Your task to perform on an android device: Go to eBay Image 0: 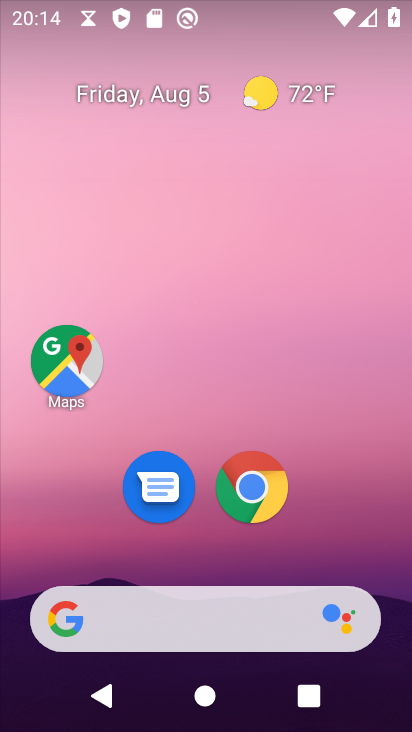
Step 0: press home button
Your task to perform on an android device: Go to eBay Image 1: 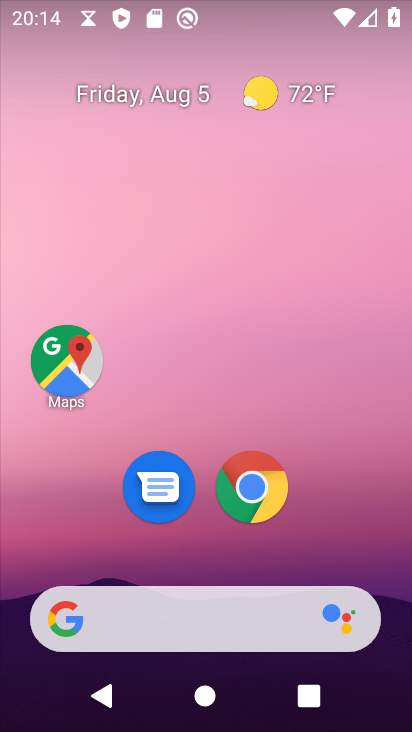
Step 1: click (260, 492)
Your task to perform on an android device: Go to eBay Image 2: 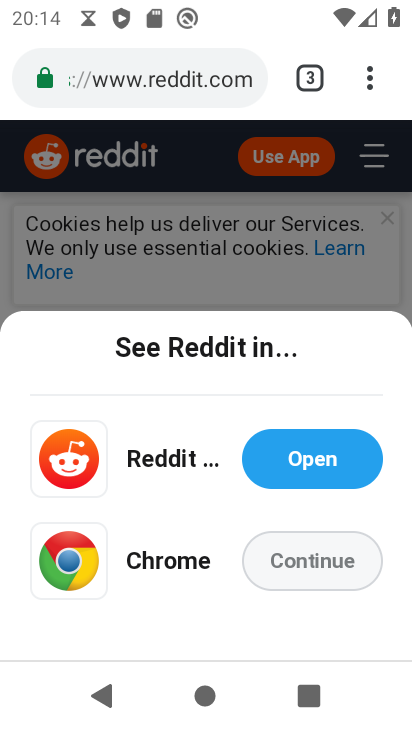
Step 2: drag from (372, 77) to (266, 157)
Your task to perform on an android device: Go to eBay Image 3: 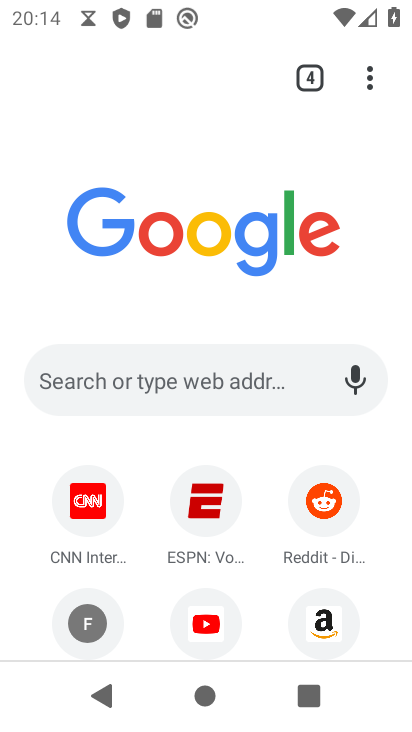
Step 3: drag from (268, 543) to (363, 134)
Your task to perform on an android device: Go to eBay Image 4: 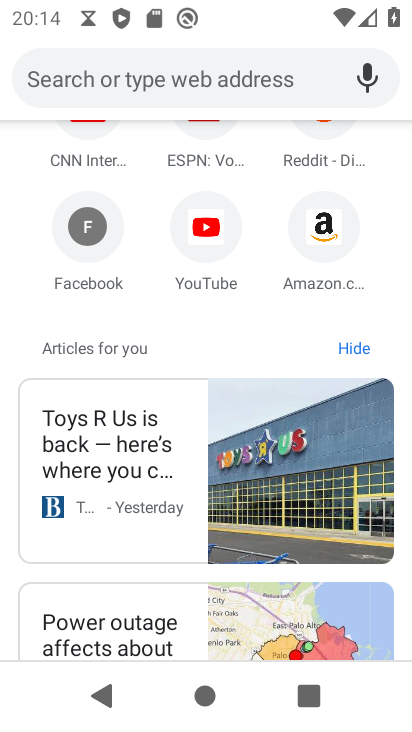
Step 4: click (150, 73)
Your task to perform on an android device: Go to eBay Image 5: 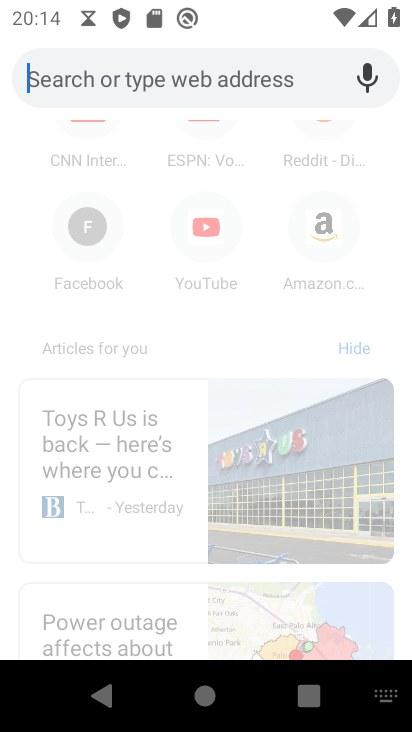
Step 5: type "ebay"
Your task to perform on an android device: Go to eBay Image 6: 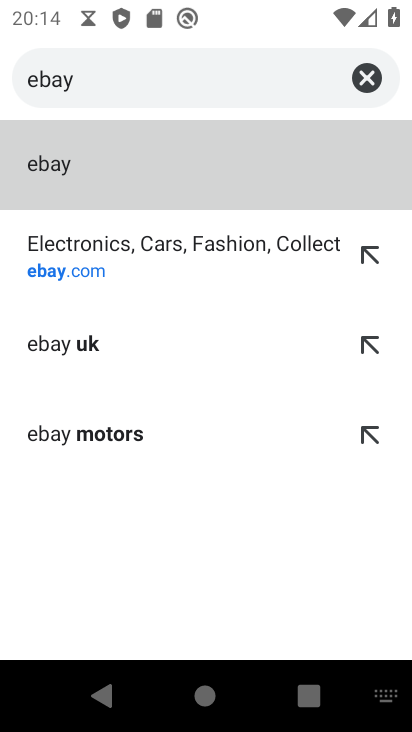
Step 6: click (101, 158)
Your task to perform on an android device: Go to eBay Image 7: 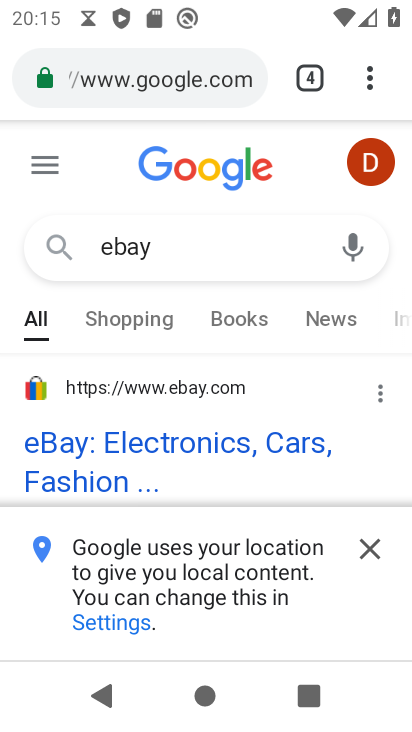
Step 7: click (154, 448)
Your task to perform on an android device: Go to eBay Image 8: 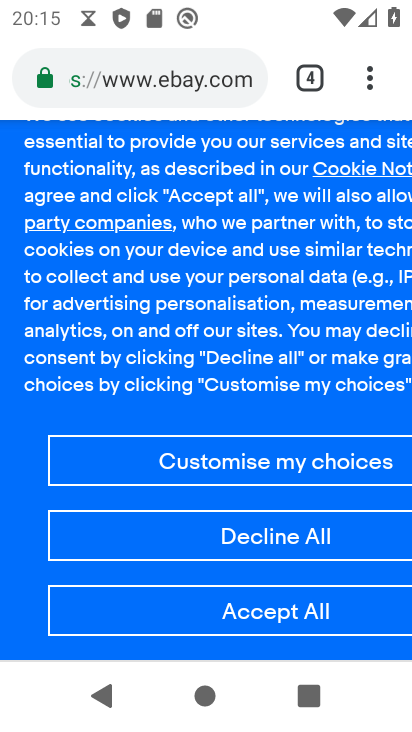
Step 8: click (300, 612)
Your task to perform on an android device: Go to eBay Image 9: 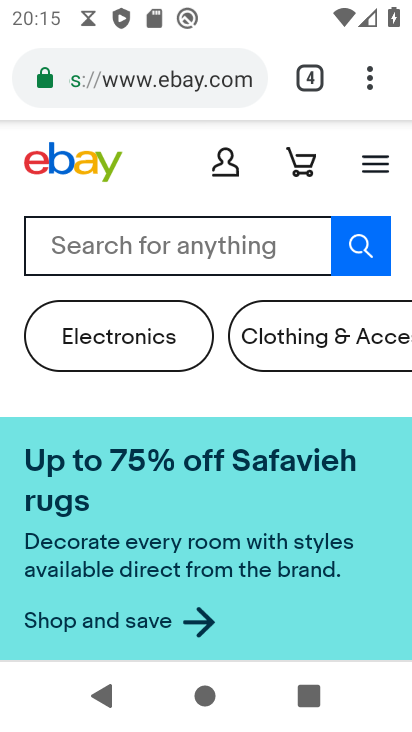
Step 9: task complete